Your task to perform on an android device: all mails in gmail Image 0: 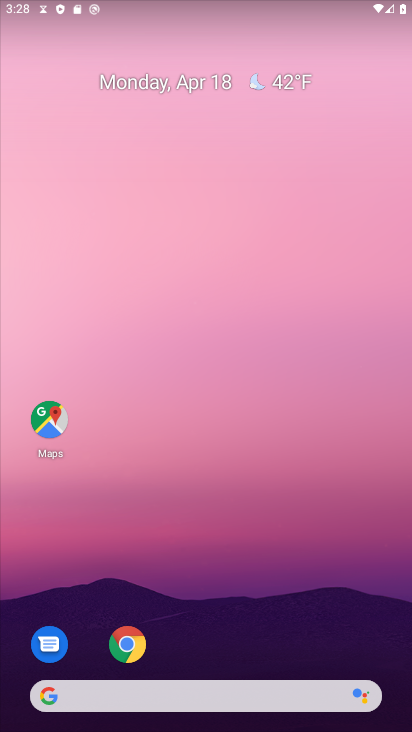
Step 0: drag from (282, 530) to (211, 35)
Your task to perform on an android device: all mails in gmail Image 1: 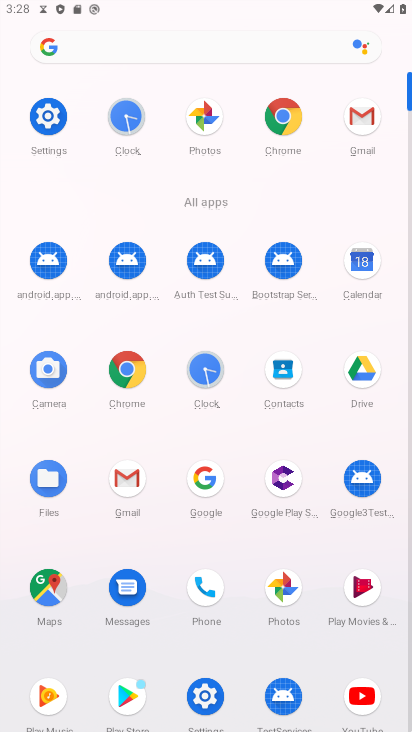
Step 1: click (360, 114)
Your task to perform on an android device: all mails in gmail Image 2: 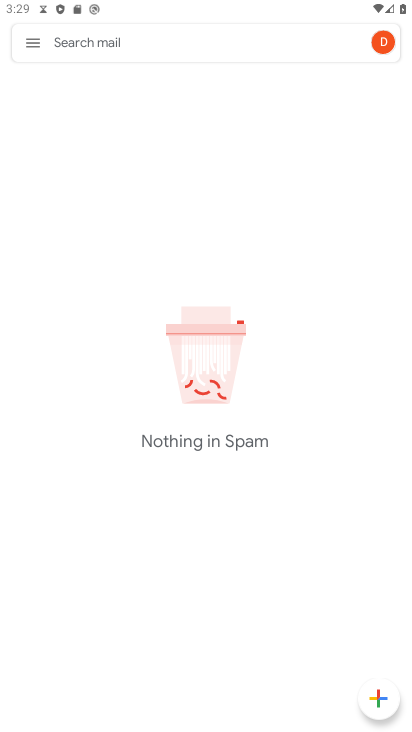
Step 2: click (27, 43)
Your task to perform on an android device: all mails in gmail Image 3: 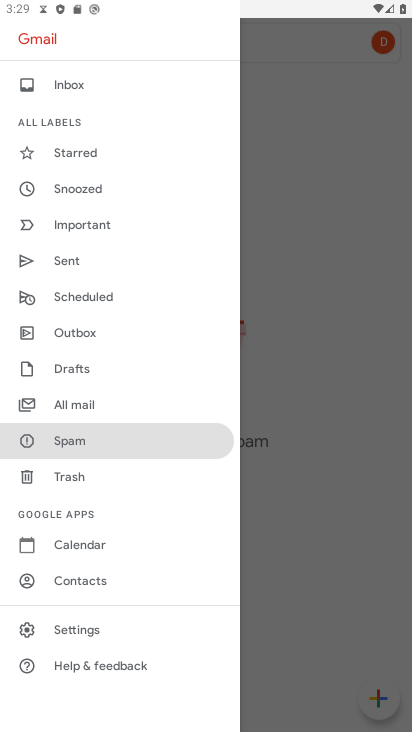
Step 3: click (76, 402)
Your task to perform on an android device: all mails in gmail Image 4: 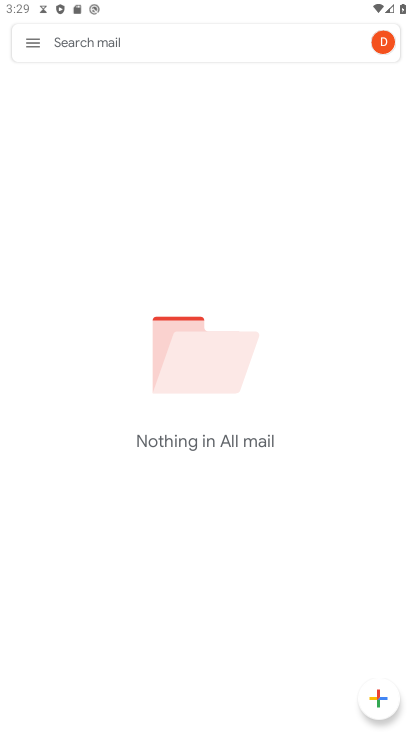
Step 4: task complete